Your task to perform on an android device: Check the weather Image 0: 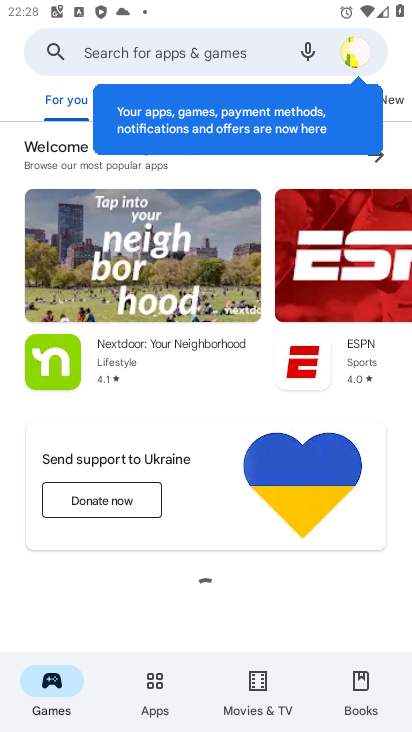
Step 0: press home button
Your task to perform on an android device: Check the weather Image 1: 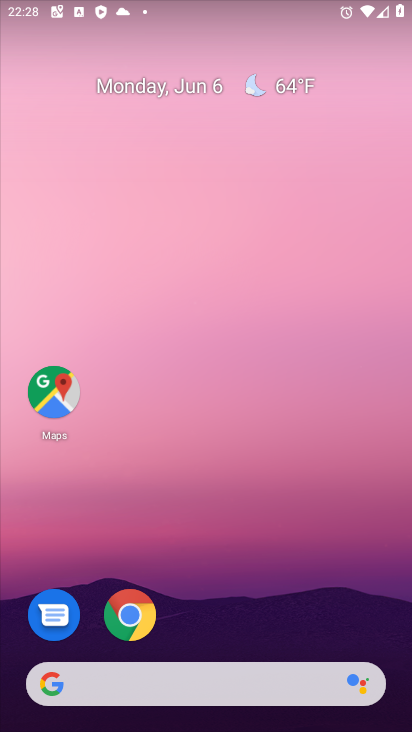
Step 1: click (291, 74)
Your task to perform on an android device: Check the weather Image 2: 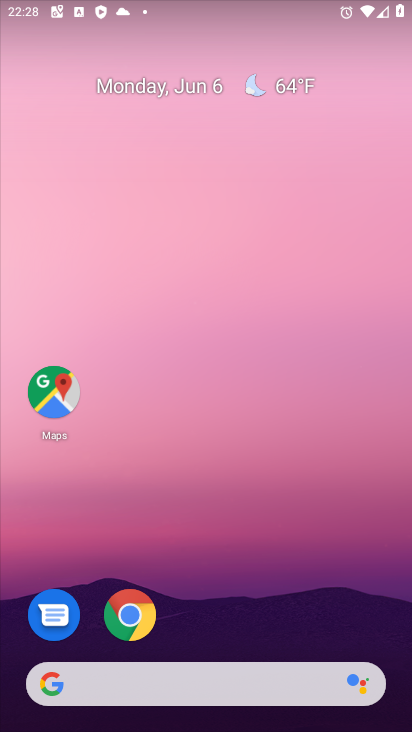
Step 2: click (290, 87)
Your task to perform on an android device: Check the weather Image 3: 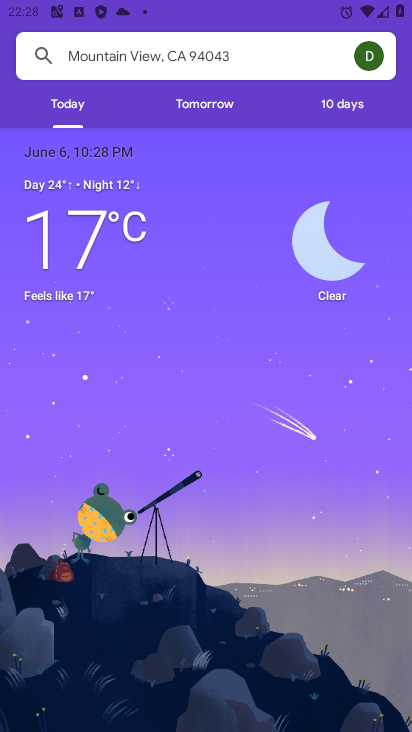
Step 3: task complete